Your task to perform on an android device: Open settings Image 0: 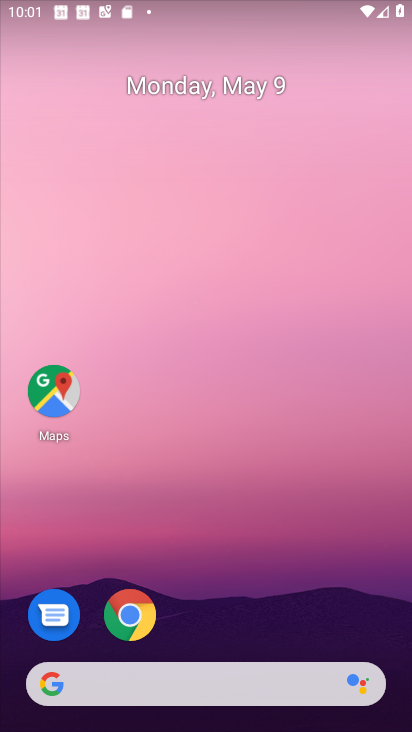
Step 0: drag from (317, 696) to (228, 247)
Your task to perform on an android device: Open settings Image 1: 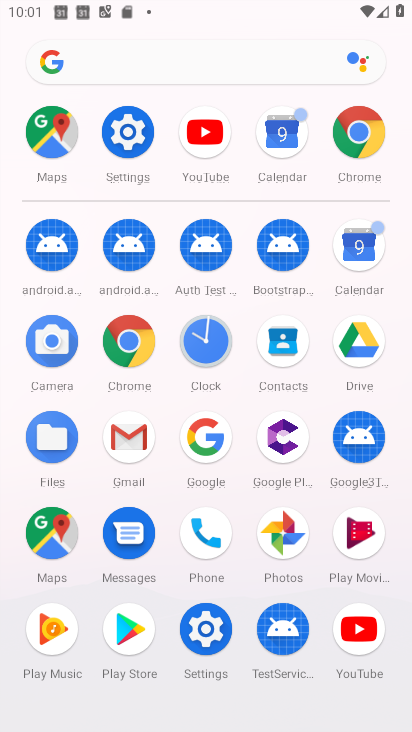
Step 1: click (222, 613)
Your task to perform on an android device: Open settings Image 2: 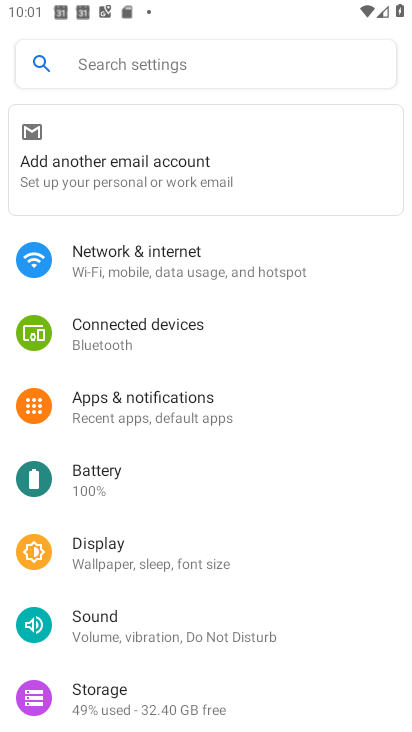
Step 2: task complete